Your task to perform on an android device: Empty the shopping cart on ebay.com. Add "apple airpods" to the cart on ebay.com Image 0: 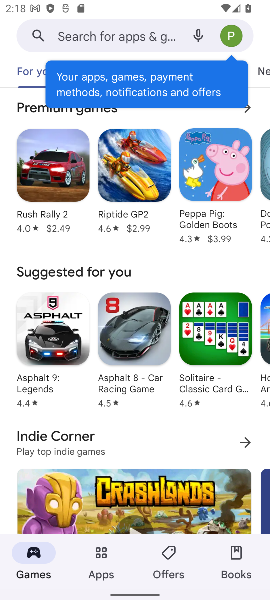
Step 0: press home button
Your task to perform on an android device: Empty the shopping cart on ebay.com. Add "apple airpods" to the cart on ebay.com Image 1: 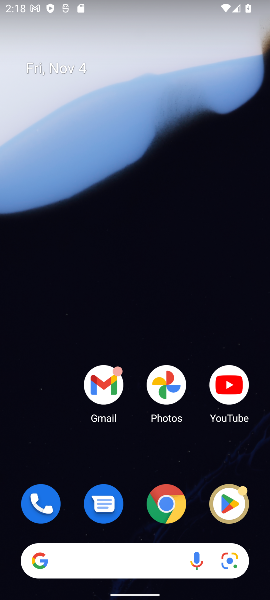
Step 1: click (169, 511)
Your task to perform on an android device: Empty the shopping cart on ebay.com. Add "apple airpods" to the cart on ebay.com Image 2: 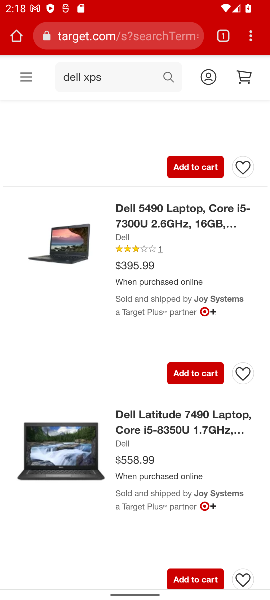
Step 2: click (104, 35)
Your task to perform on an android device: Empty the shopping cart on ebay.com. Add "apple airpods" to the cart on ebay.com Image 3: 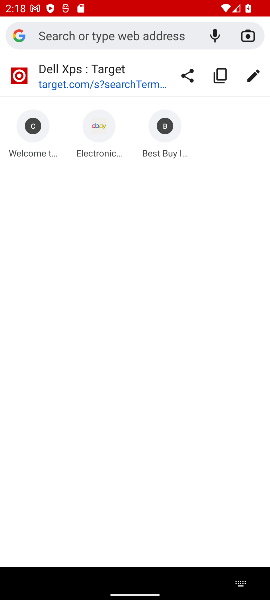
Step 3: type "ebay.com"
Your task to perform on an android device: Empty the shopping cart on ebay.com. Add "apple airpods" to the cart on ebay.com Image 4: 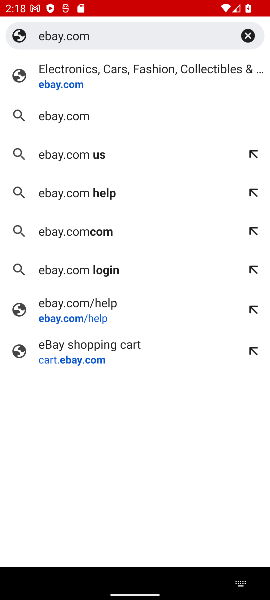
Step 4: click (52, 90)
Your task to perform on an android device: Empty the shopping cart on ebay.com. Add "apple airpods" to the cart on ebay.com Image 5: 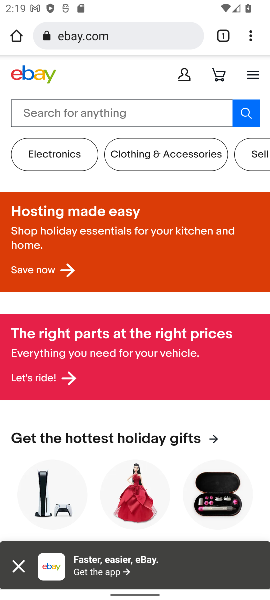
Step 5: click (215, 82)
Your task to perform on an android device: Empty the shopping cart on ebay.com. Add "apple airpods" to the cart on ebay.com Image 6: 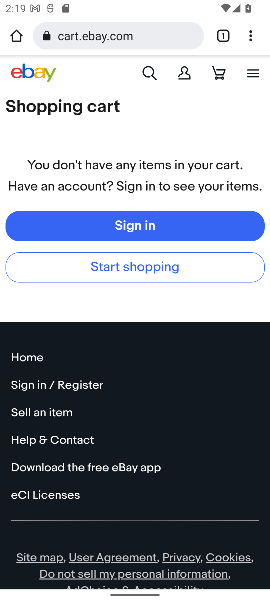
Step 6: click (149, 74)
Your task to perform on an android device: Empty the shopping cart on ebay.com. Add "apple airpods" to the cart on ebay.com Image 7: 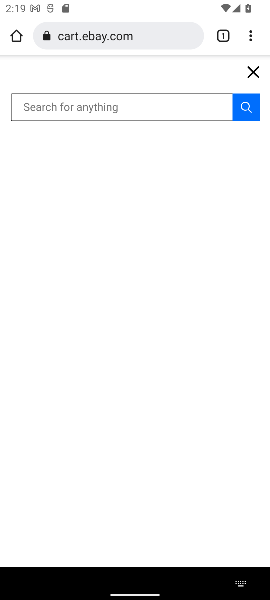
Step 7: type "apple airpods"
Your task to perform on an android device: Empty the shopping cart on ebay.com. Add "apple airpods" to the cart on ebay.com Image 8: 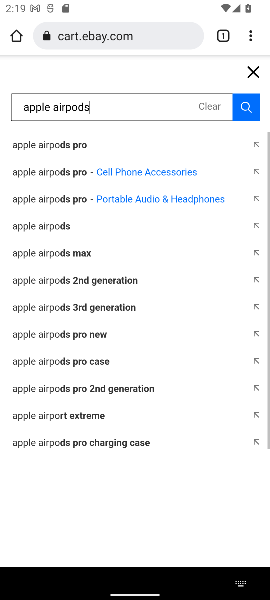
Step 8: click (64, 217)
Your task to perform on an android device: Empty the shopping cart on ebay.com. Add "apple airpods" to the cart on ebay.com Image 9: 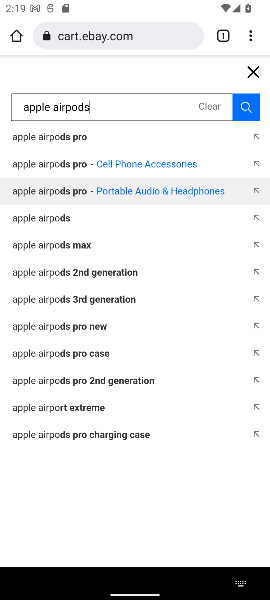
Step 9: click (18, 221)
Your task to perform on an android device: Empty the shopping cart on ebay.com. Add "apple airpods" to the cart on ebay.com Image 10: 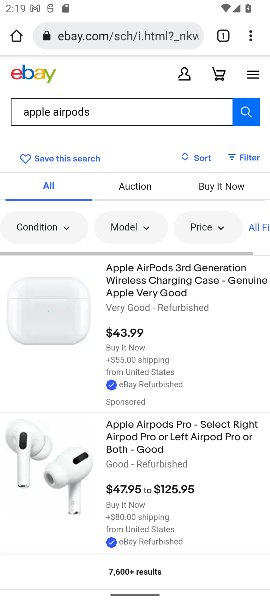
Step 10: click (109, 329)
Your task to perform on an android device: Empty the shopping cart on ebay.com. Add "apple airpods" to the cart on ebay.com Image 11: 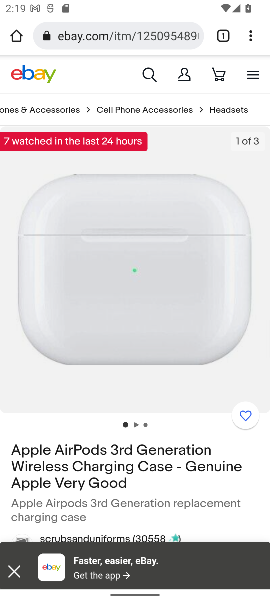
Step 11: drag from (179, 424) to (191, 280)
Your task to perform on an android device: Empty the shopping cart on ebay.com. Add "apple airpods" to the cart on ebay.com Image 12: 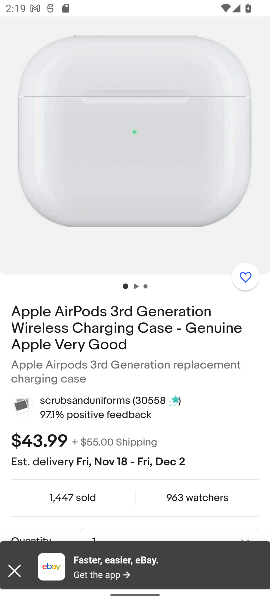
Step 12: drag from (134, 438) to (166, 192)
Your task to perform on an android device: Empty the shopping cart on ebay.com. Add "apple airpods" to the cart on ebay.com Image 13: 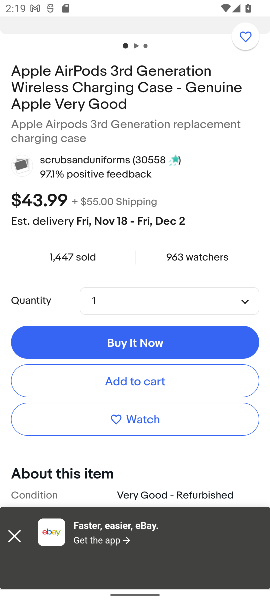
Step 13: drag from (156, 349) to (169, 248)
Your task to perform on an android device: Empty the shopping cart on ebay.com. Add "apple airpods" to the cart on ebay.com Image 14: 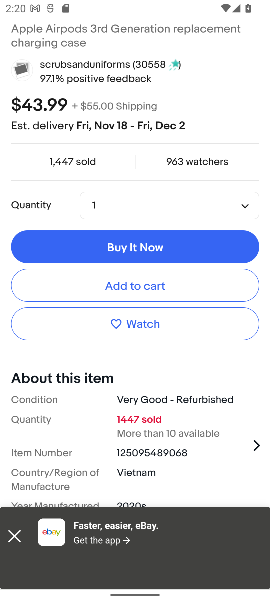
Step 14: click (124, 290)
Your task to perform on an android device: Empty the shopping cart on ebay.com. Add "apple airpods" to the cart on ebay.com Image 15: 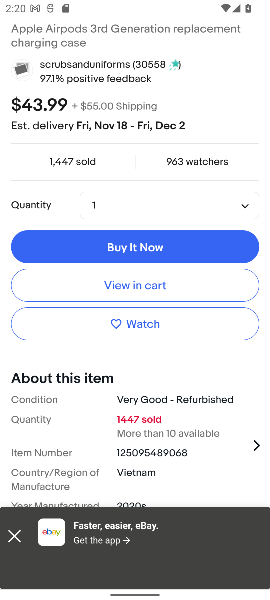
Step 15: task complete